Your task to perform on an android device: Open notification settings Image 0: 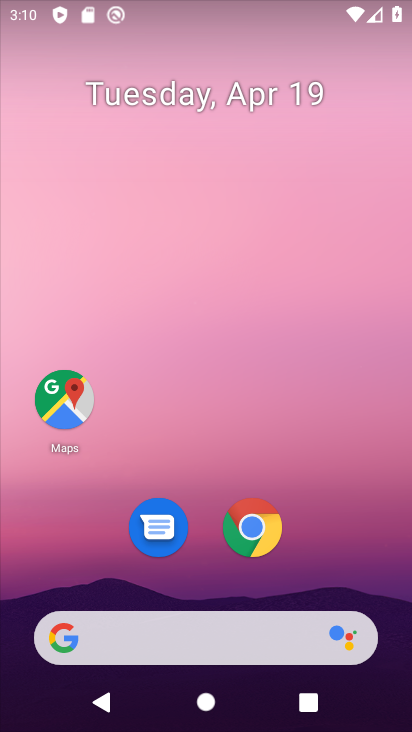
Step 0: drag from (328, 561) to (323, 171)
Your task to perform on an android device: Open notification settings Image 1: 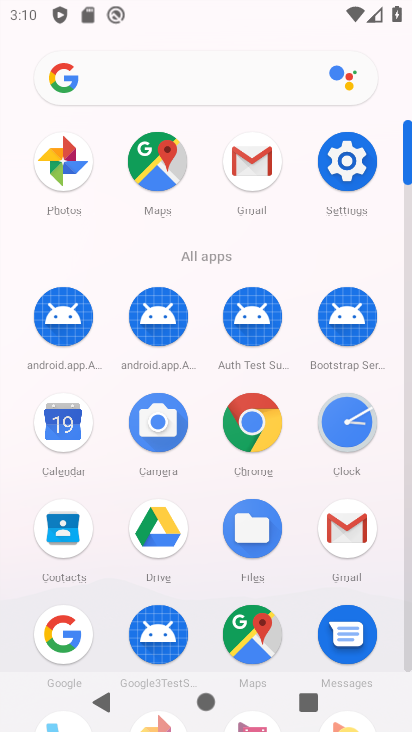
Step 1: drag from (204, 574) to (217, 312)
Your task to perform on an android device: Open notification settings Image 2: 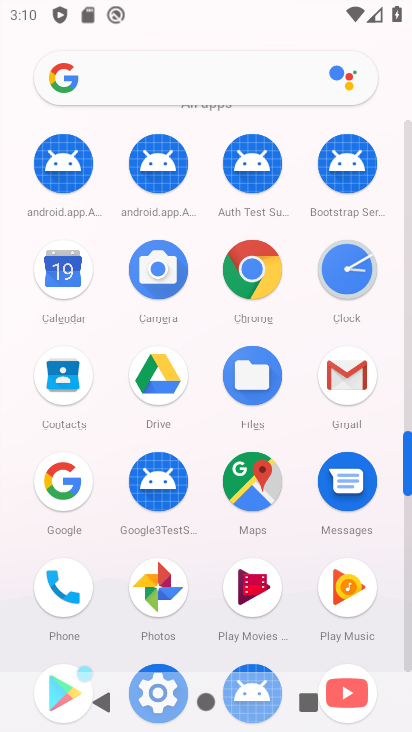
Step 2: drag from (200, 584) to (241, 282)
Your task to perform on an android device: Open notification settings Image 3: 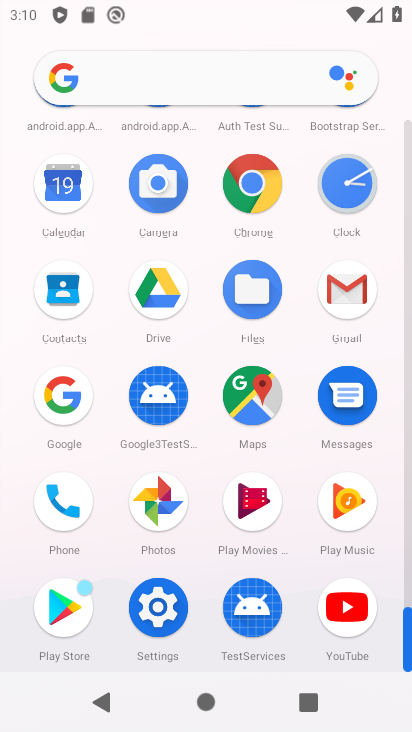
Step 3: click (151, 607)
Your task to perform on an android device: Open notification settings Image 4: 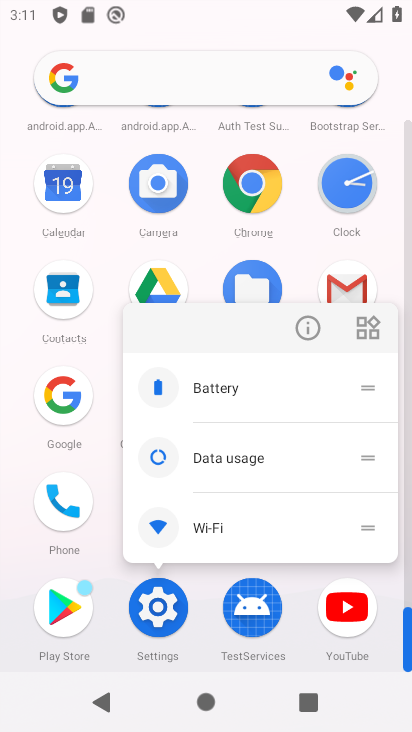
Step 4: click (146, 616)
Your task to perform on an android device: Open notification settings Image 5: 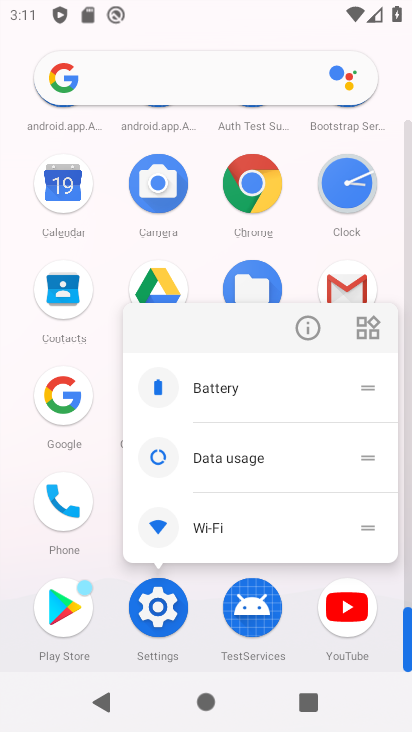
Step 5: click (158, 616)
Your task to perform on an android device: Open notification settings Image 6: 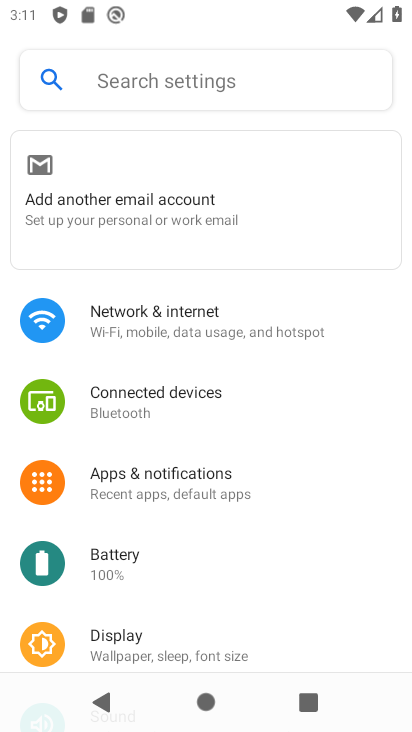
Step 6: click (171, 486)
Your task to perform on an android device: Open notification settings Image 7: 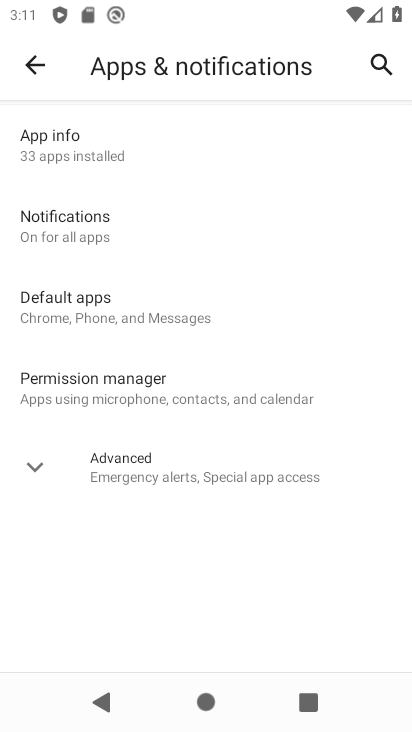
Step 7: click (112, 456)
Your task to perform on an android device: Open notification settings Image 8: 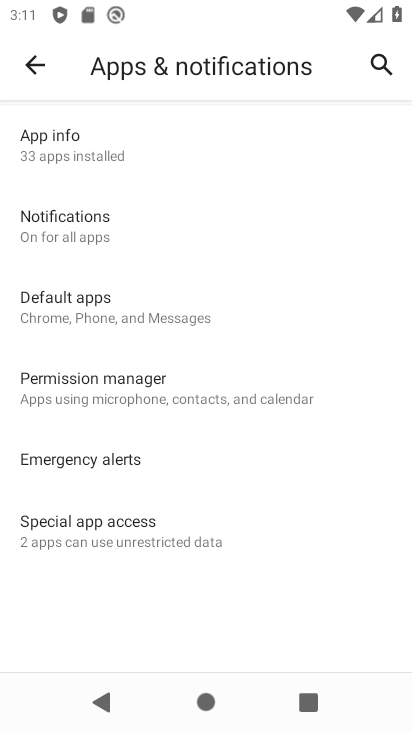
Step 8: task complete